Your task to perform on an android device: Show me popular games on the Play Store Image 0: 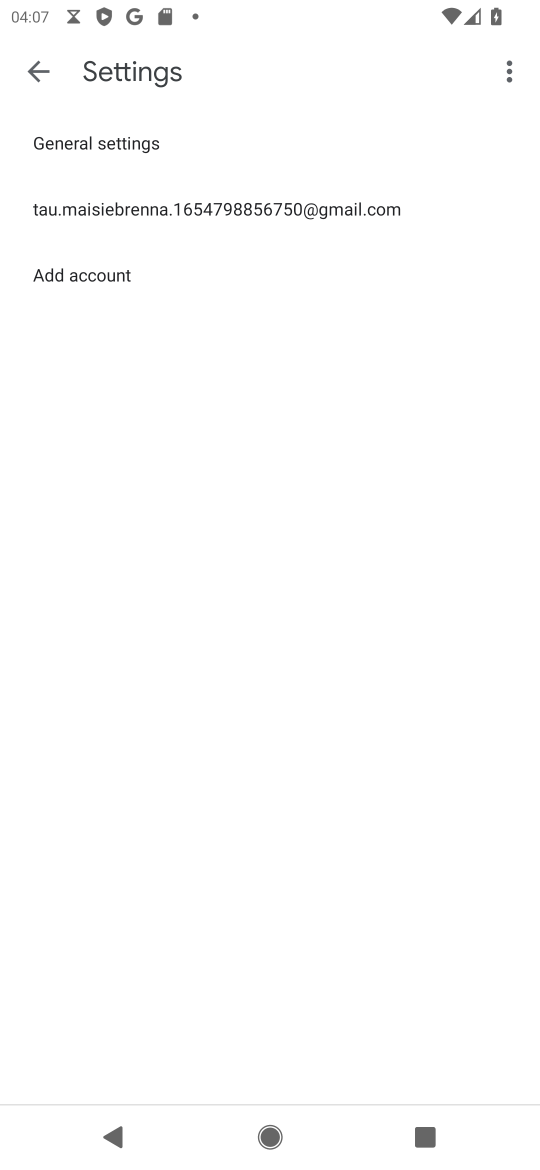
Step 0: press home button
Your task to perform on an android device: Show me popular games on the Play Store Image 1: 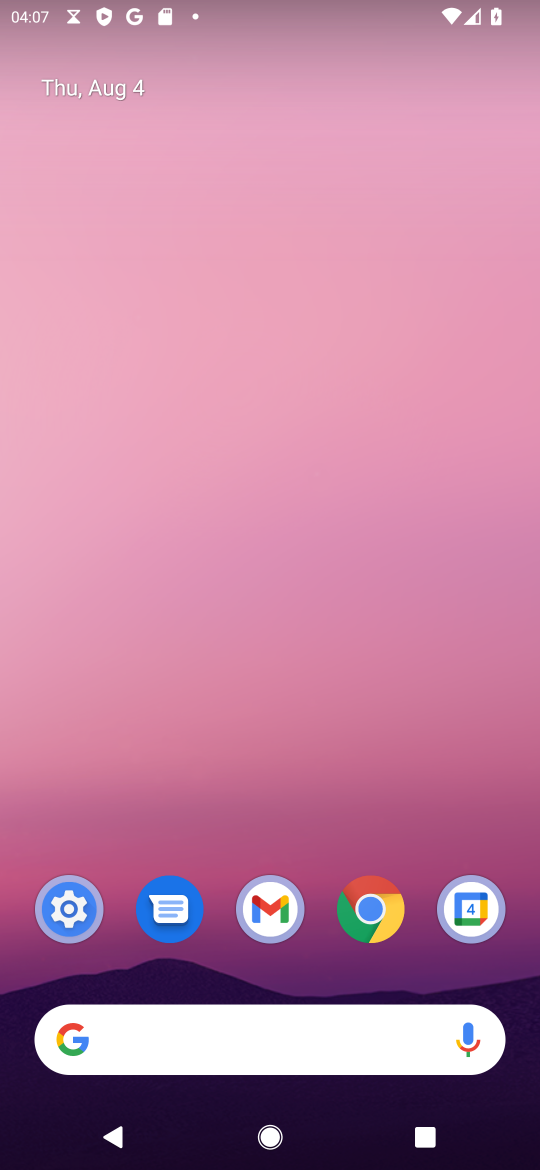
Step 1: drag from (221, 1020) to (452, 122)
Your task to perform on an android device: Show me popular games on the Play Store Image 2: 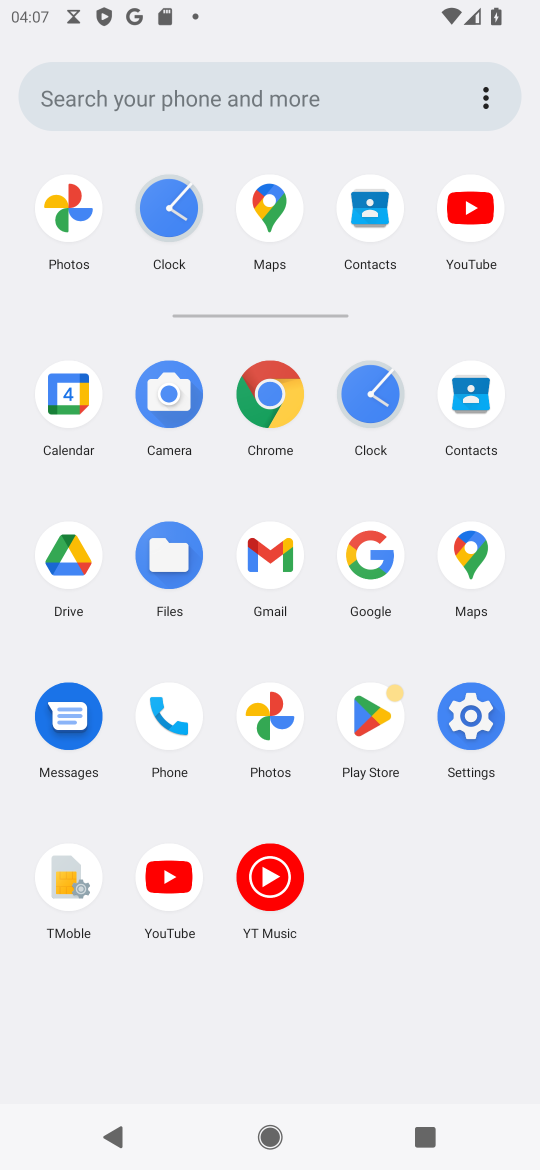
Step 2: click (367, 726)
Your task to perform on an android device: Show me popular games on the Play Store Image 3: 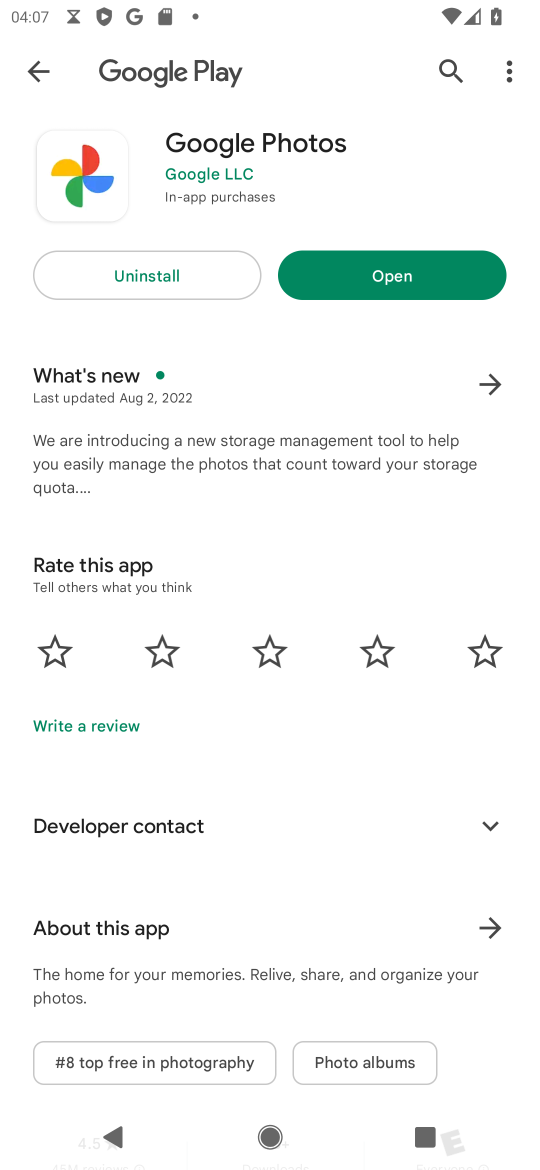
Step 3: click (24, 67)
Your task to perform on an android device: Show me popular games on the Play Store Image 4: 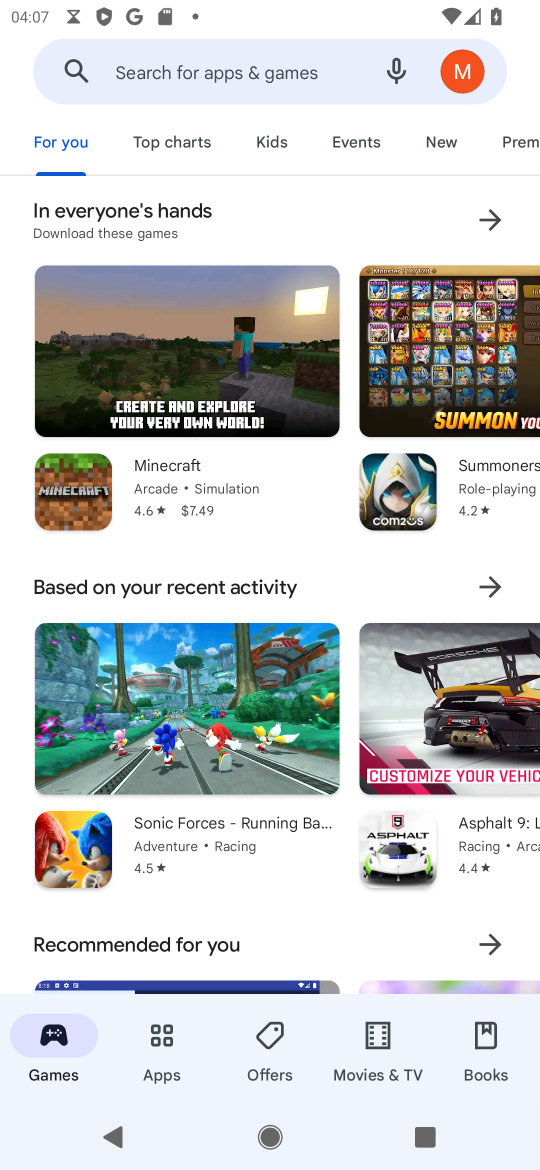
Step 4: drag from (271, 941) to (311, 268)
Your task to perform on an android device: Show me popular games on the Play Store Image 5: 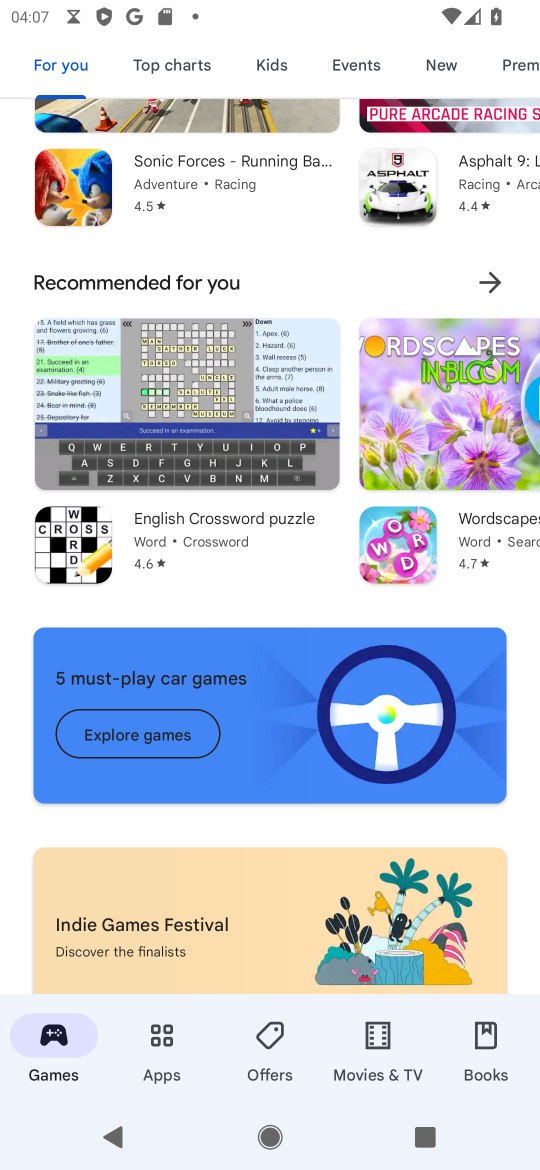
Step 5: drag from (225, 854) to (409, 96)
Your task to perform on an android device: Show me popular games on the Play Store Image 6: 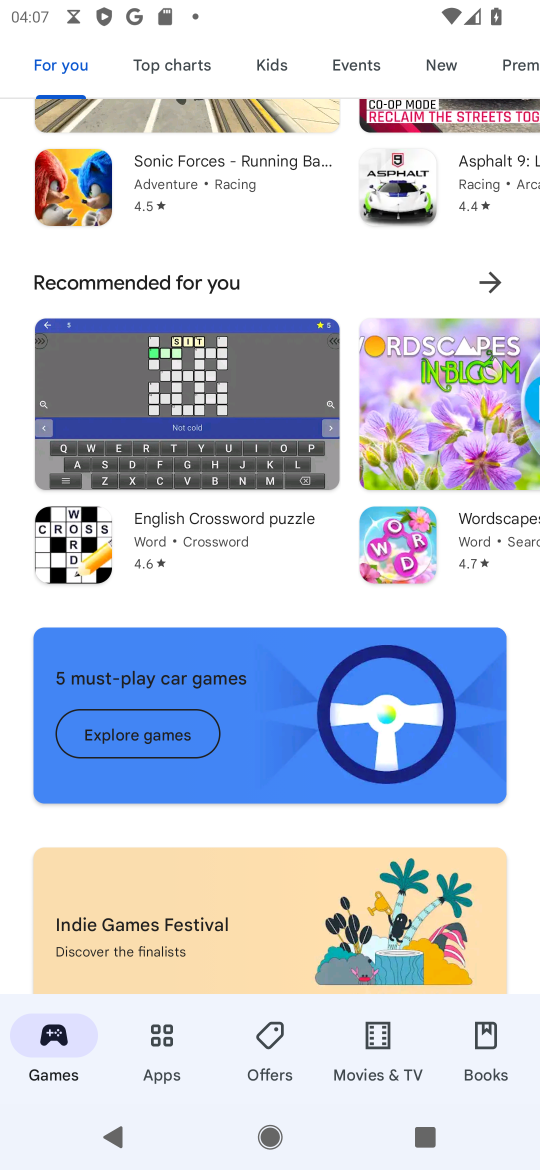
Step 6: drag from (275, 852) to (447, 165)
Your task to perform on an android device: Show me popular games on the Play Store Image 7: 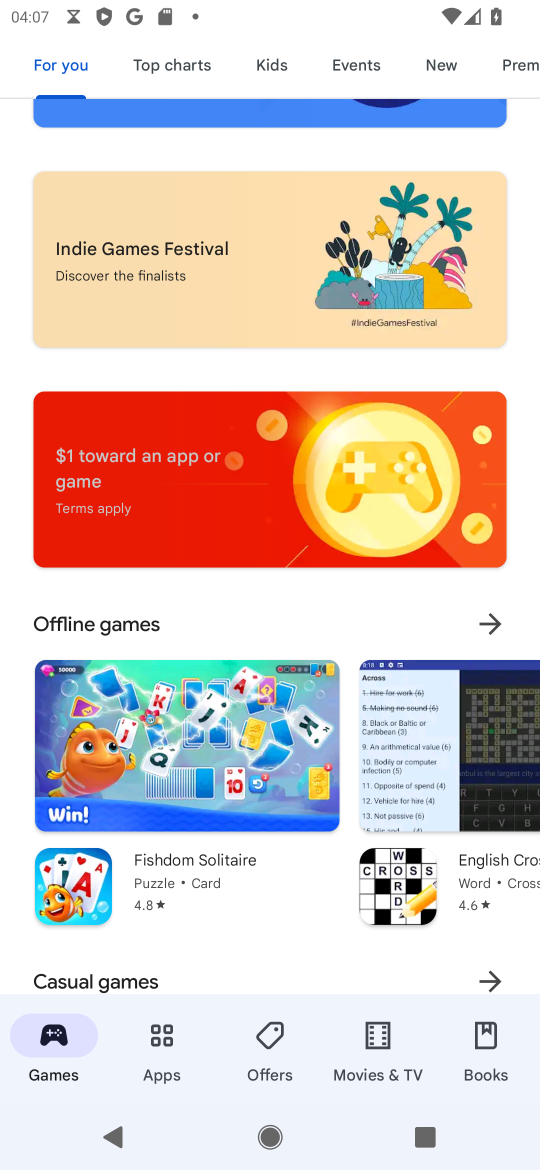
Step 7: drag from (259, 552) to (331, 5)
Your task to perform on an android device: Show me popular games on the Play Store Image 8: 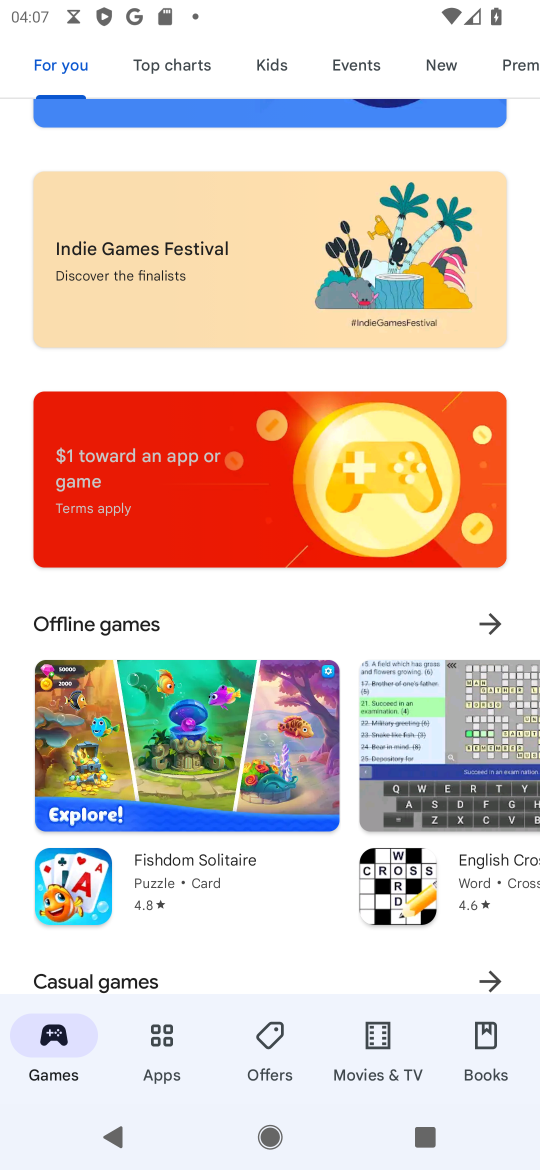
Step 8: drag from (209, 931) to (359, 159)
Your task to perform on an android device: Show me popular games on the Play Store Image 9: 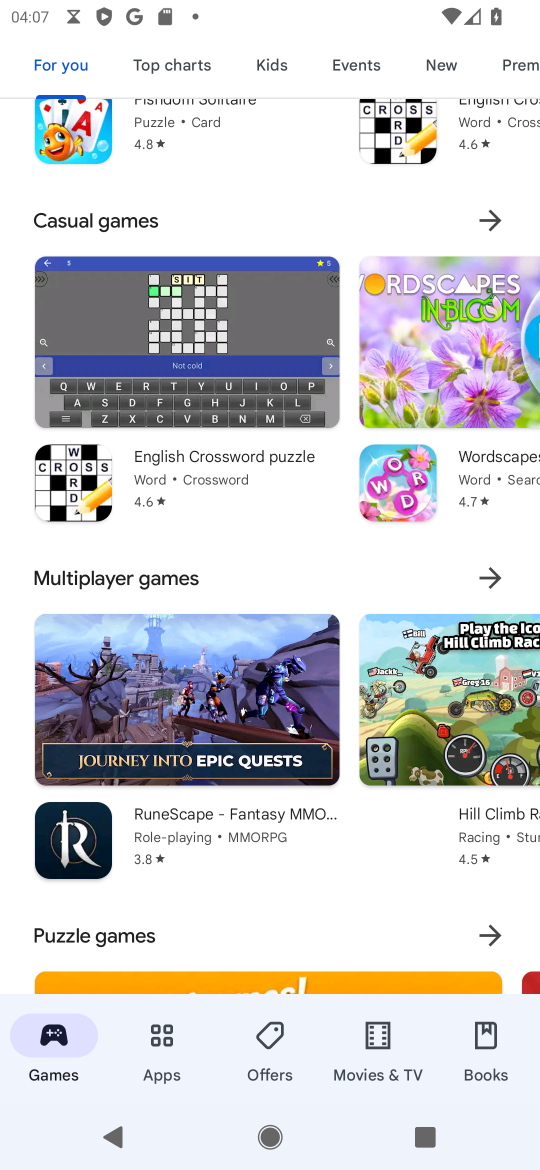
Step 9: drag from (277, 896) to (384, 91)
Your task to perform on an android device: Show me popular games on the Play Store Image 10: 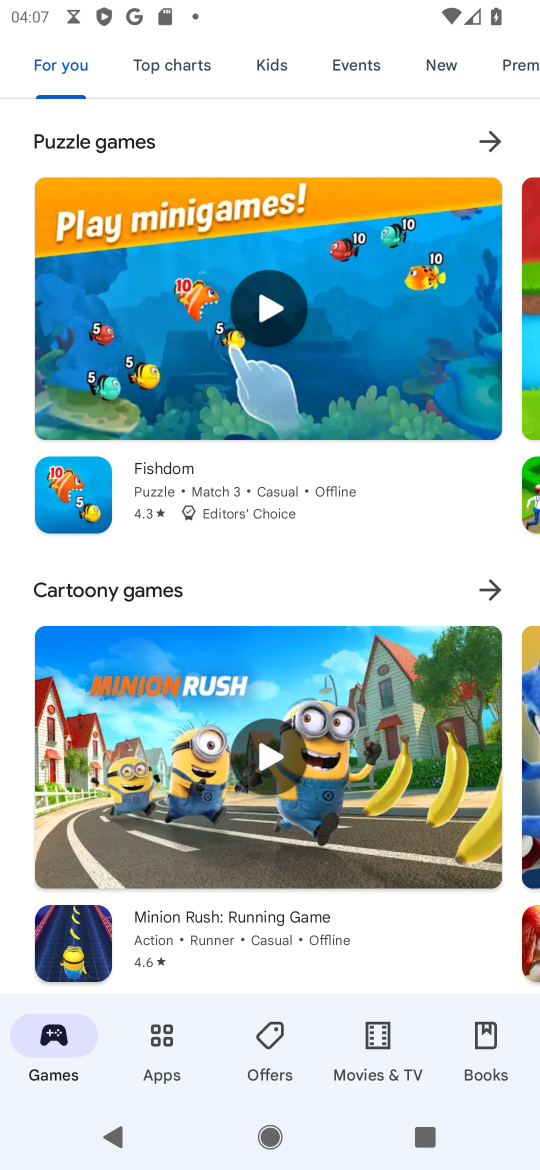
Step 10: drag from (330, 426) to (334, 879)
Your task to perform on an android device: Show me popular games on the Play Store Image 11: 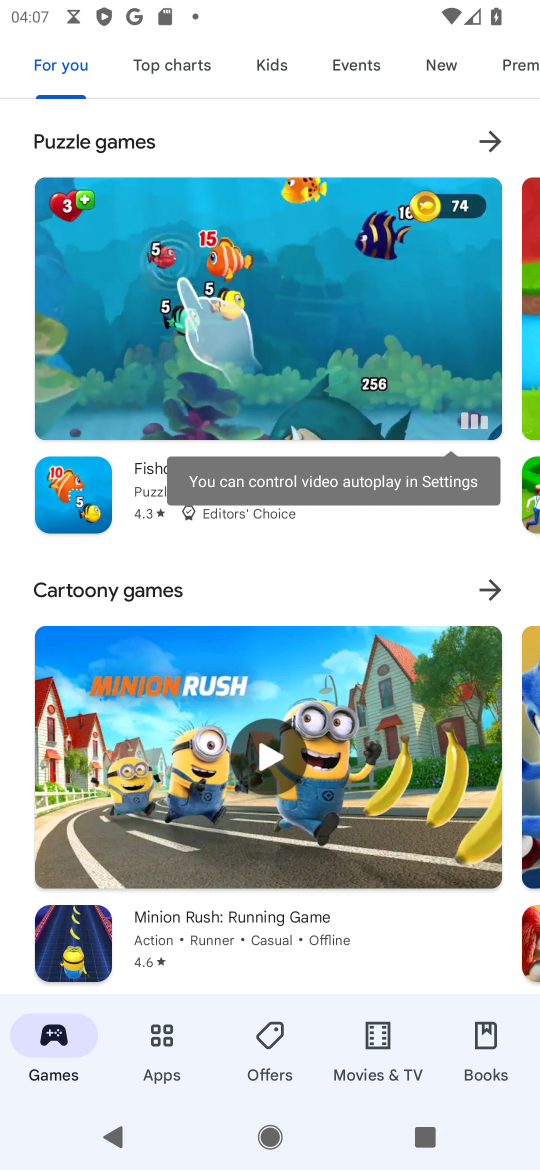
Step 11: drag from (271, 626) to (288, 937)
Your task to perform on an android device: Show me popular games on the Play Store Image 12: 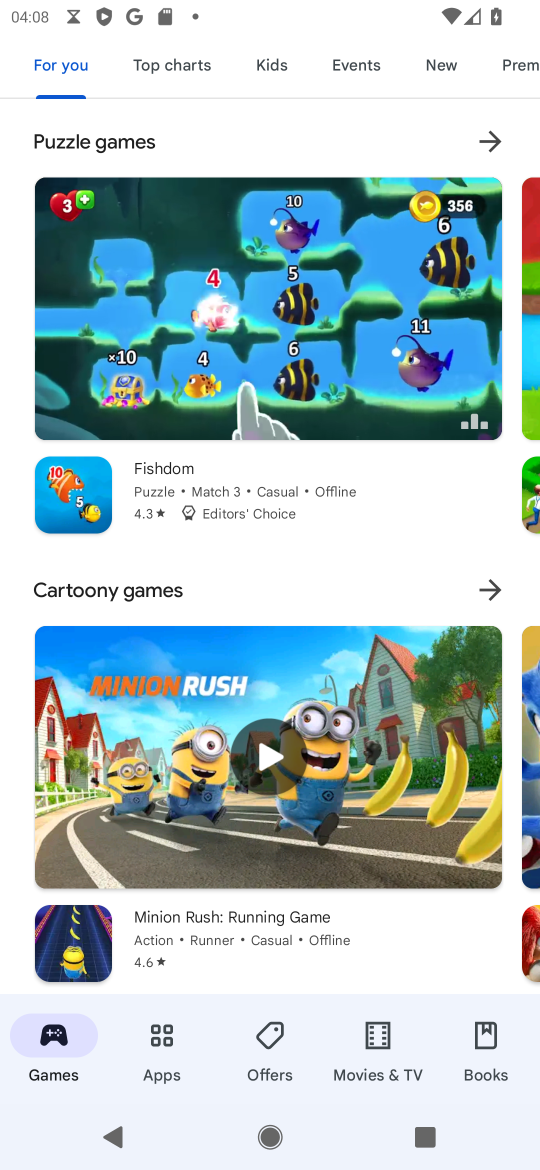
Step 12: drag from (391, 584) to (380, 862)
Your task to perform on an android device: Show me popular games on the Play Store Image 13: 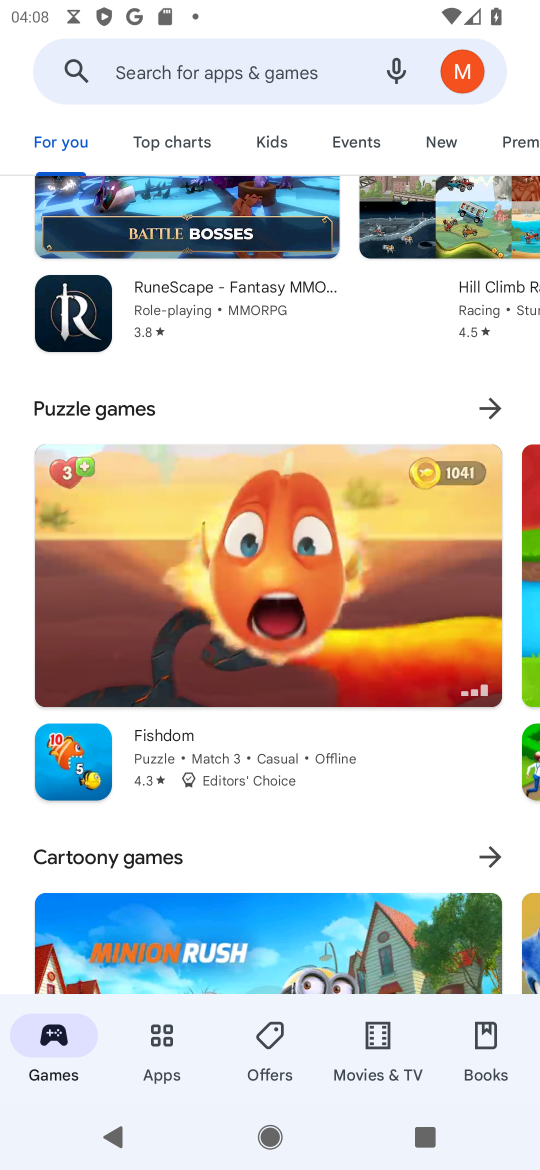
Step 13: drag from (336, 424) to (337, 956)
Your task to perform on an android device: Show me popular games on the Play Store Image 14: 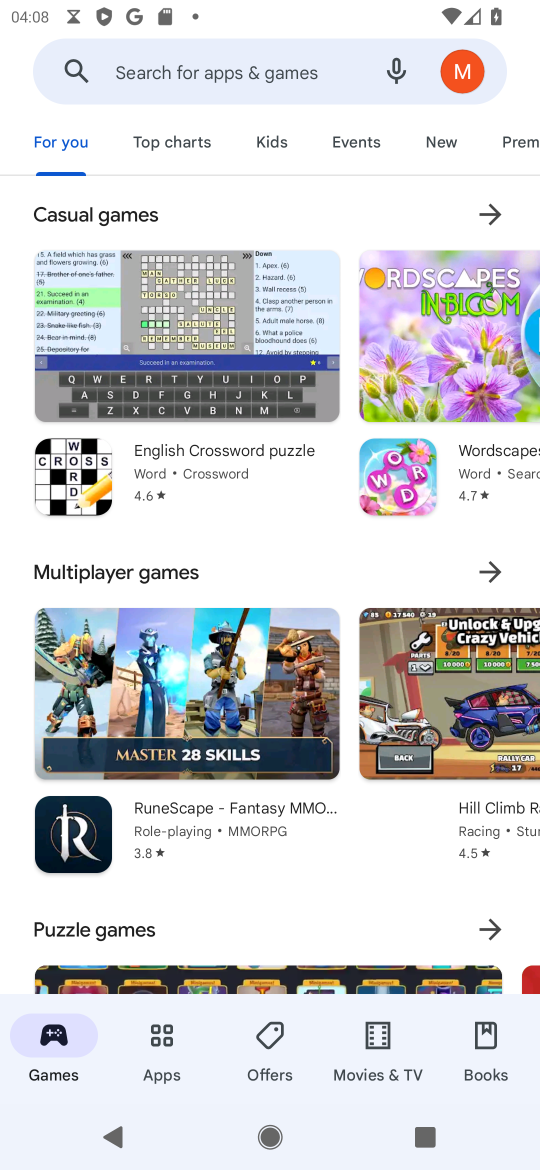
Step 14: drag from (273, 204) to (234, 998)
Your task to perform on an android device: Show me popular games on the Play Store Image 15: 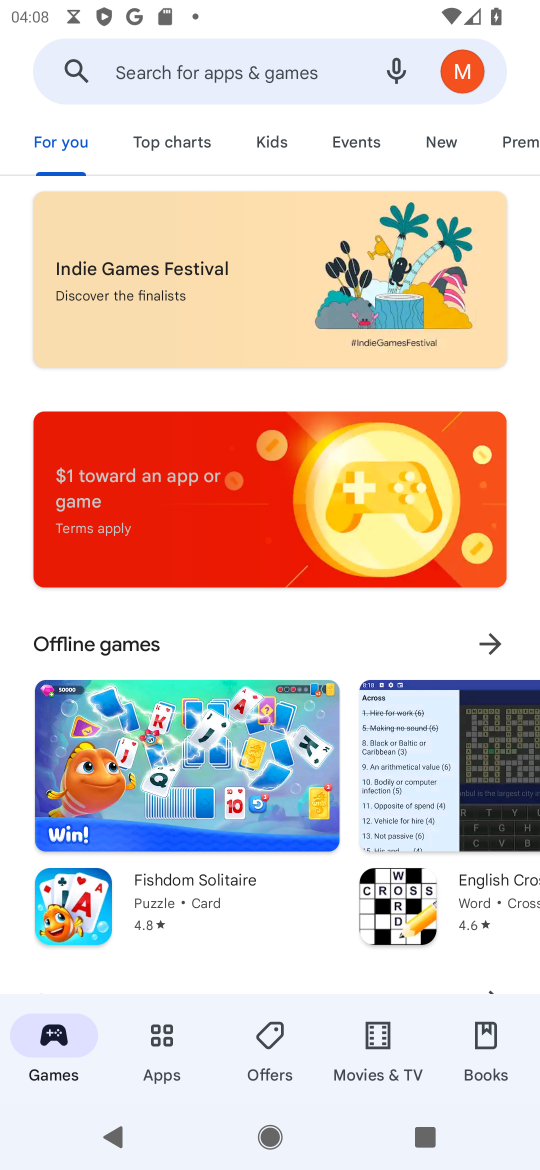
Step 15: click (155, 139)
Your task to perform on an android device: Show me popular games on the Play Store Image 16: 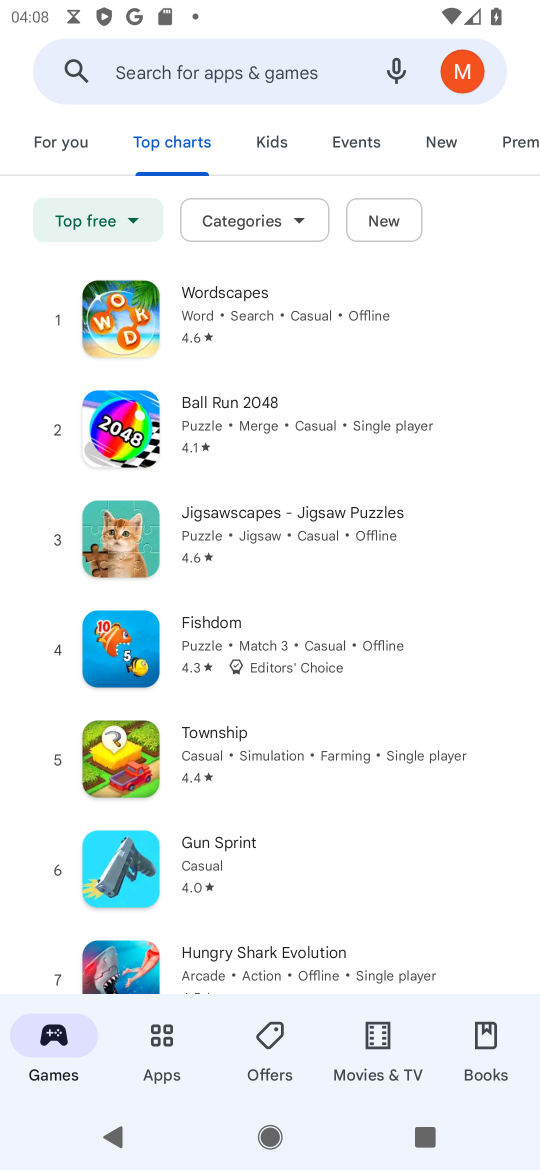
Step 16: click (52, 146)
Your task to perform on an android device: Show me popular games on the Play Store Image 17: 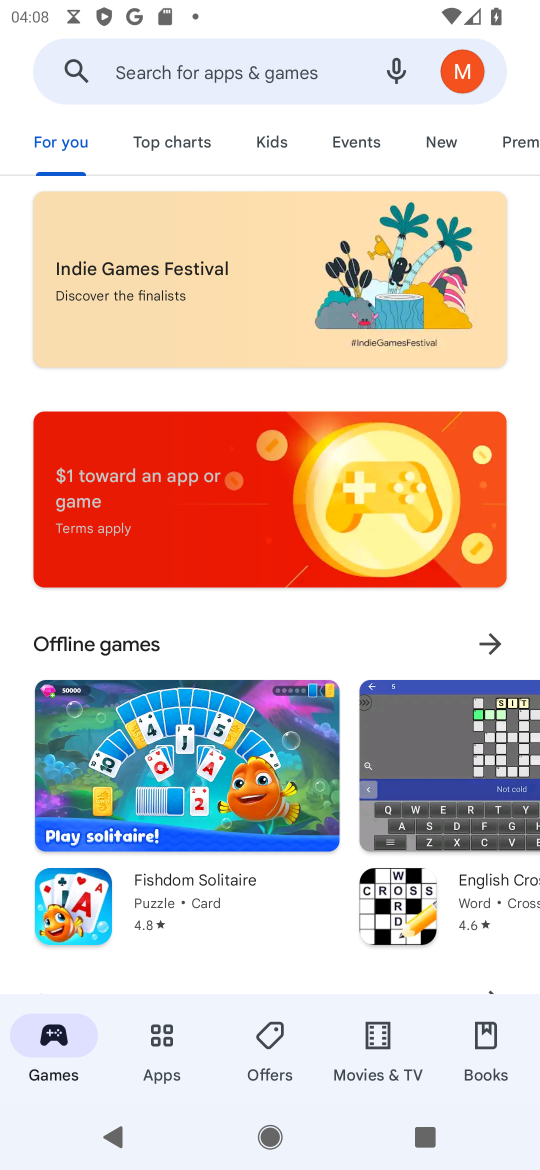
Step 17: task complete